Your task to perform on an android device: move a message to another label in the gmail app Image 0: 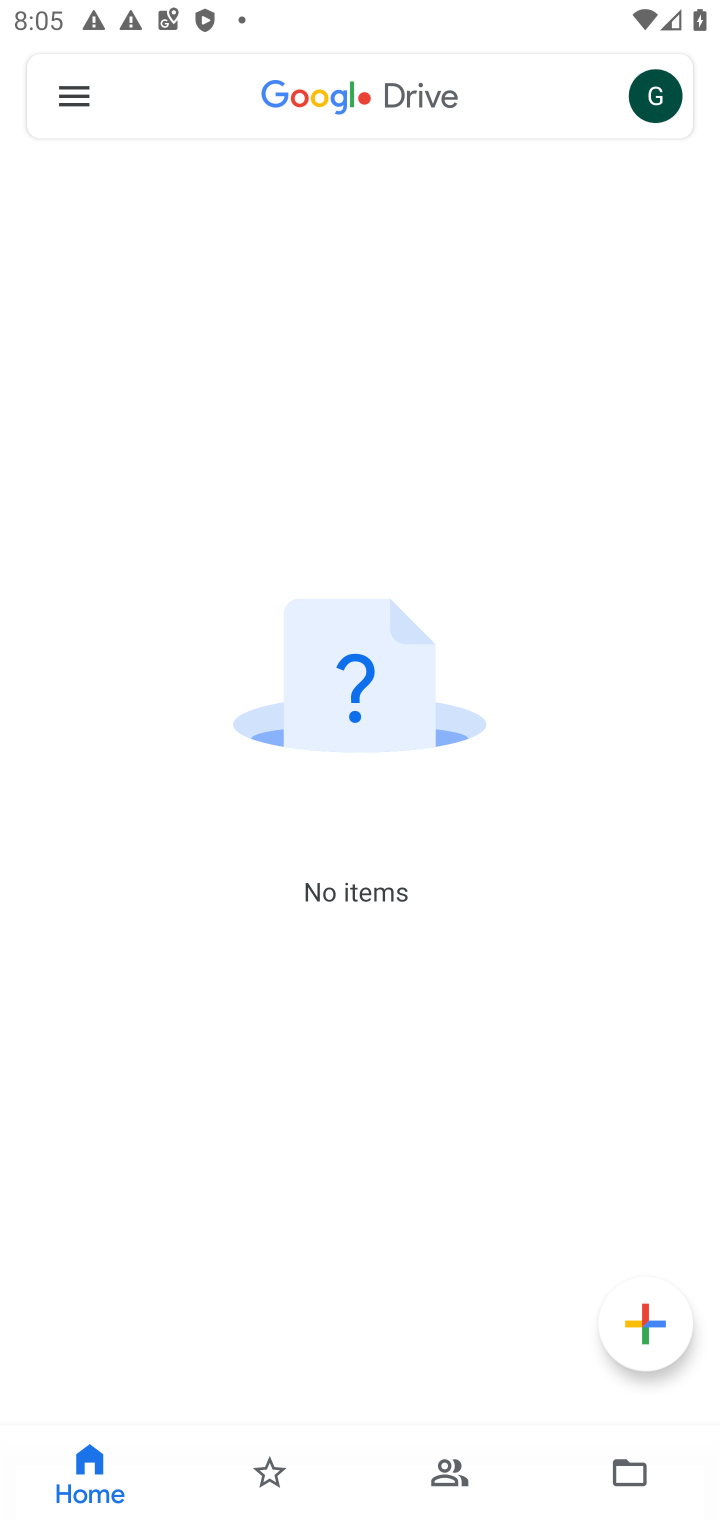
Step 0: press back button
Your task to perform on an android device: move a message to another label in the gmail app Image 1: 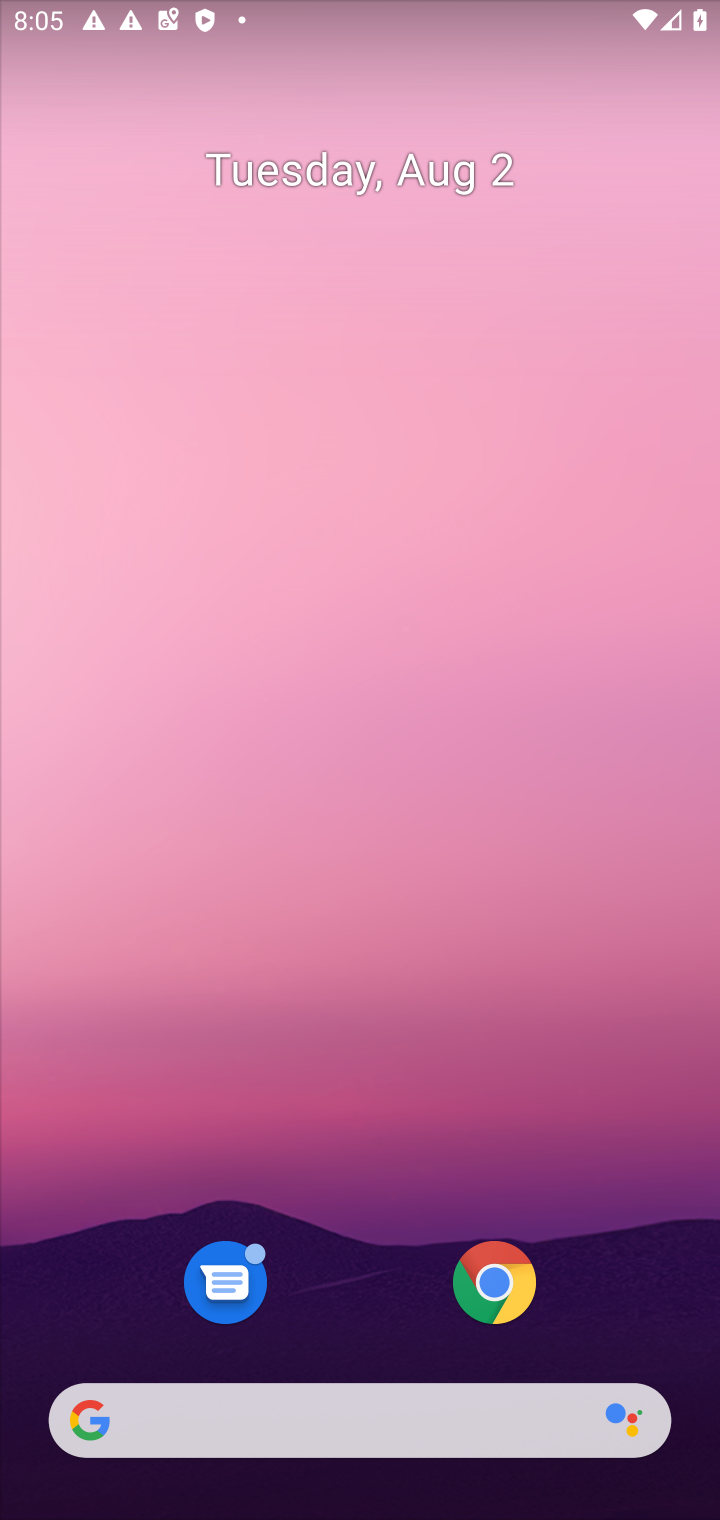
Step 1: drag from (396, 1376) to (486, 126)
Your task to perform on an android device: move a message to another label in the gmail app Image 2: 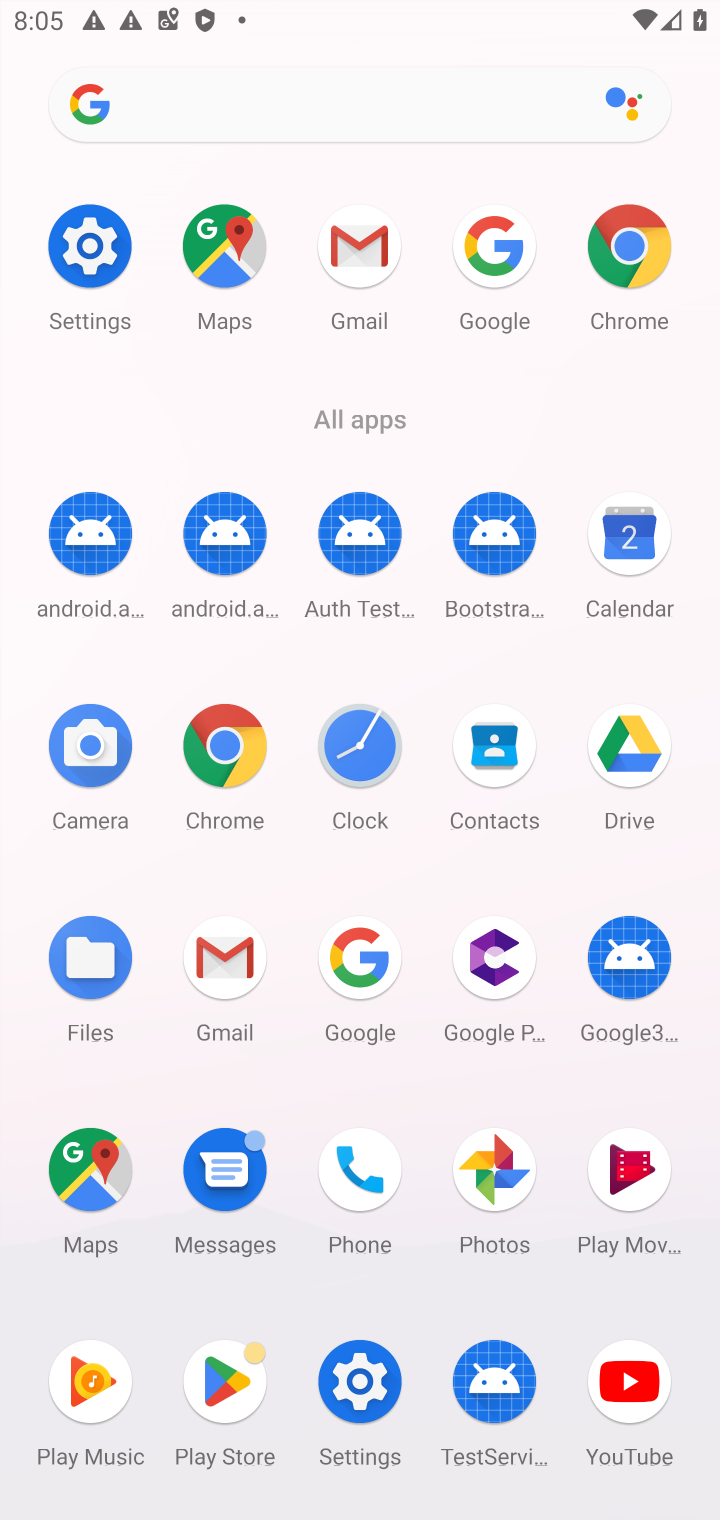
Step 2: click (177, 956)
Your task to perform on an android device: move a message to another label in the gmail app Image 3: 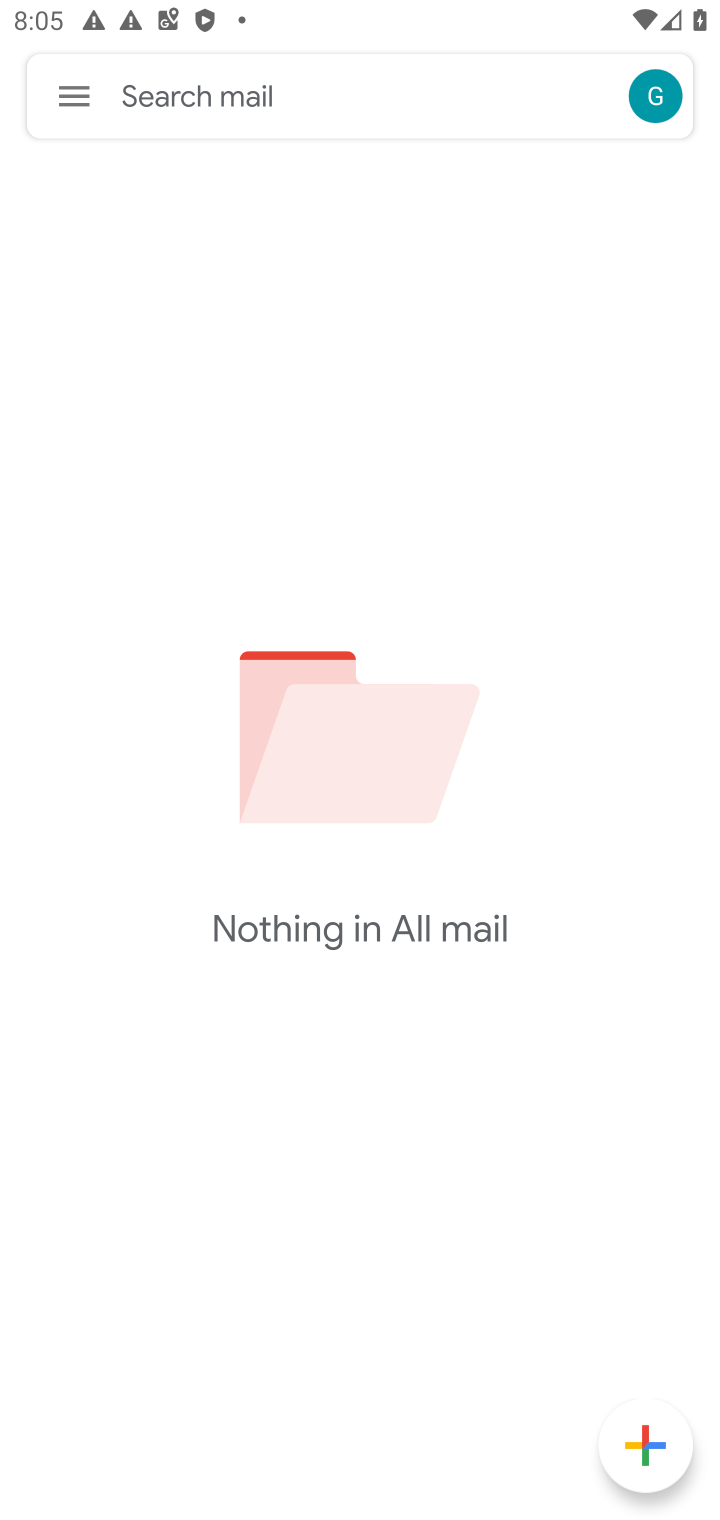
Step 3: task complete